Your task to perform on an android device: Show me productivity apps on the Play Store Image 0: 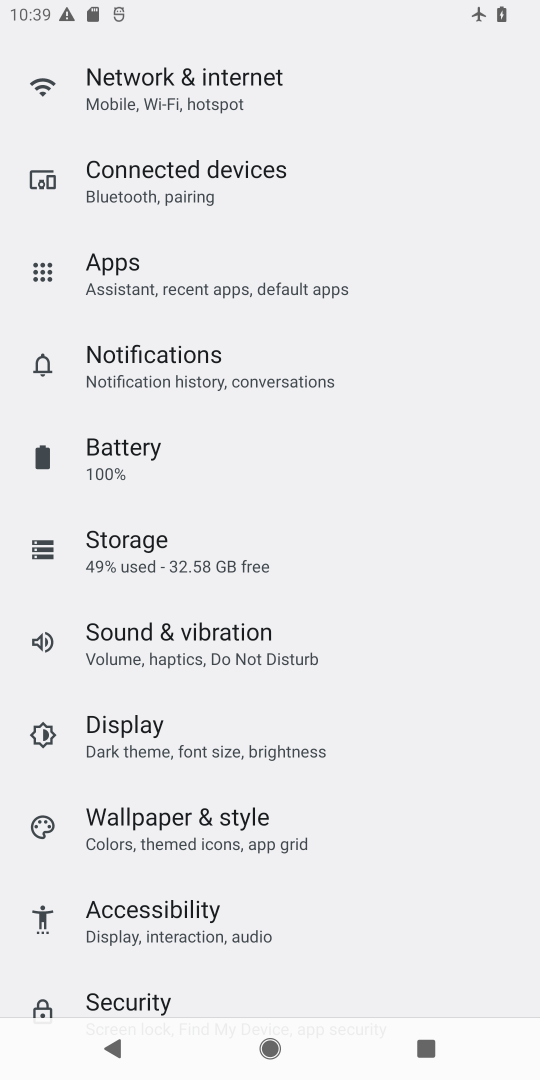
Step 0: press home button
Your task to perform on an android device: Show me productivity apps on the Play Store Image 1: 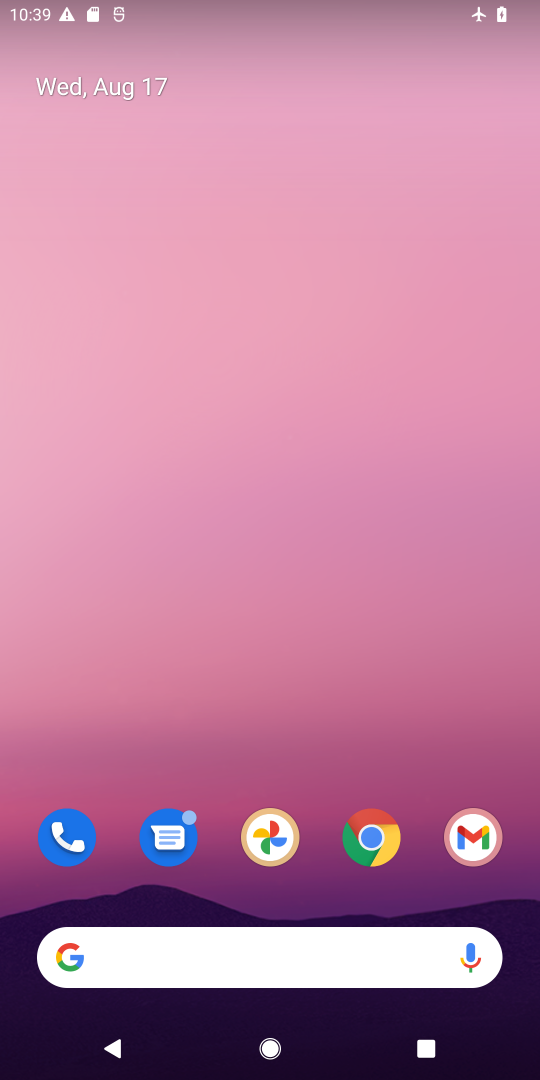
Step 1: drag from (192, 948) to (274, 154)
Your task to perform on an android device: Show me productivity apps on the Play Store Image 2: 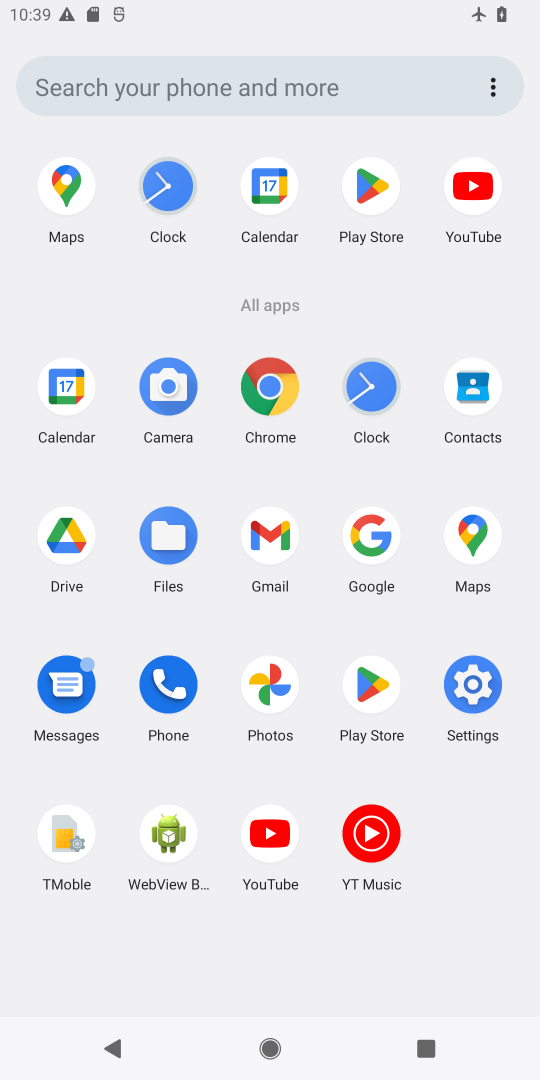
Step 2: click (369, 194)
Your task to perform on an android device: Show me productivity apps on the Play Store Image 3: 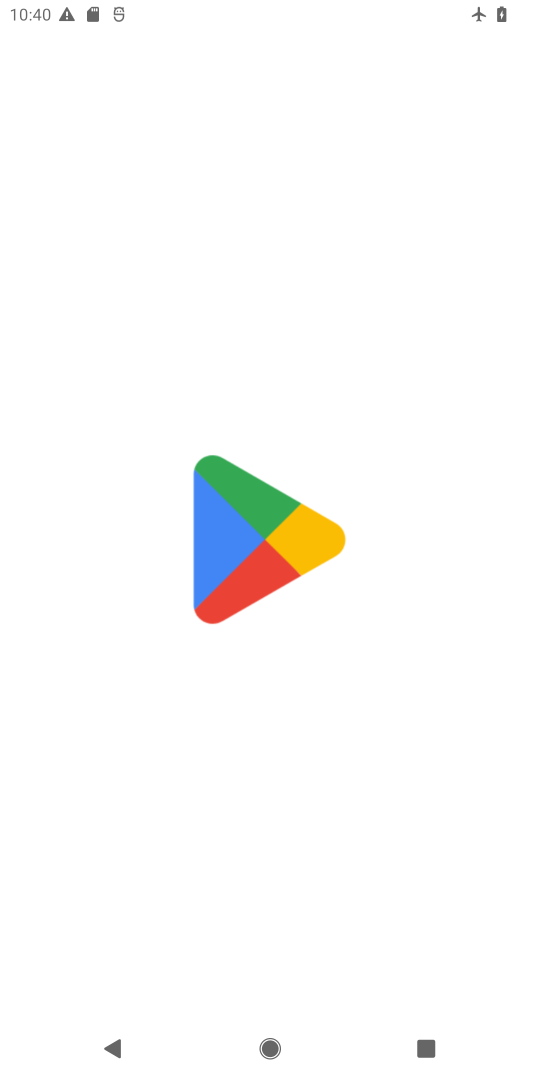
Step 3: task complete